Your task to perform on an android device: turn notification dots on Image 0: 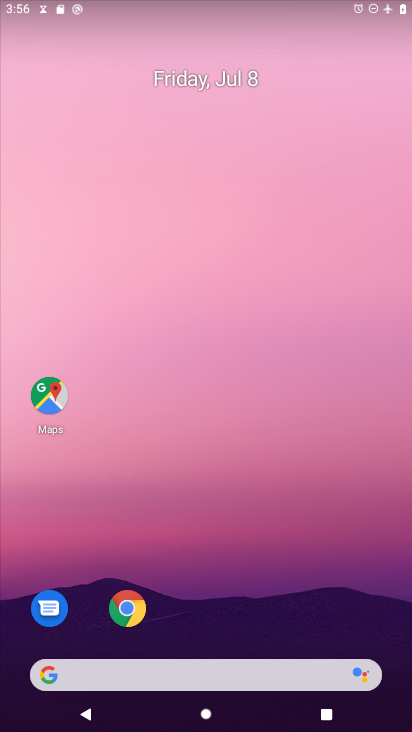
Step 0: drag from (236, 691) to (253, 9)
Your task to perform on an android device: turn notification dots on Image 1: 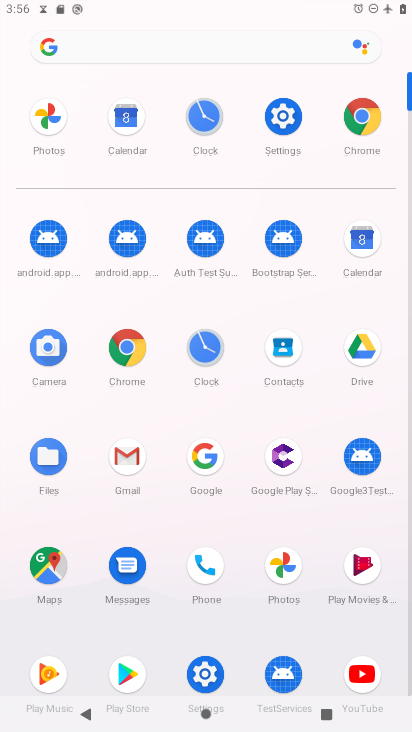
Step 1: click (281, 111)
Your task to perform on an android device: turn notification dots on Image 2: 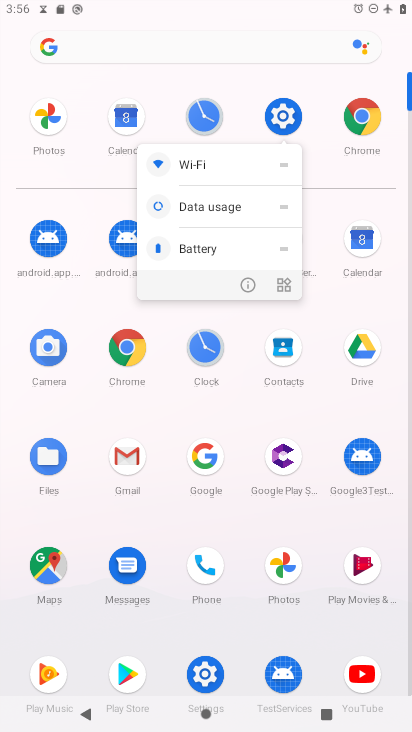
Step 2: click (281, 111)
Your task to perform on an android device: turn notification dots on Image 3: 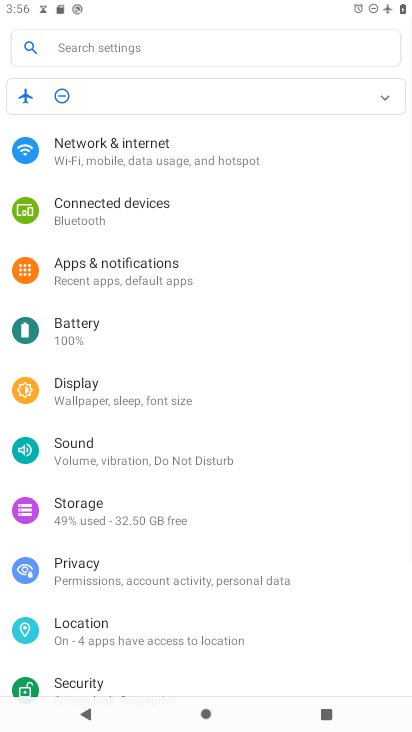
Step 3: click (151, 272)
Your task to perform on an android device: turn notification dots on Image 4: 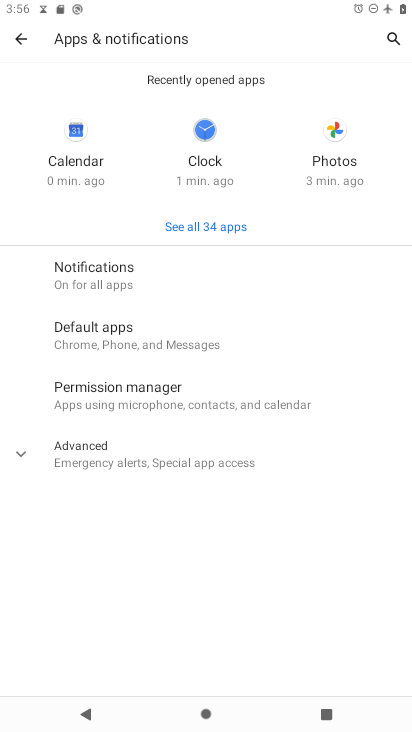
Step 4: click (139, 278)
Your task to perform on an android device: turn notification dots on Image 5: 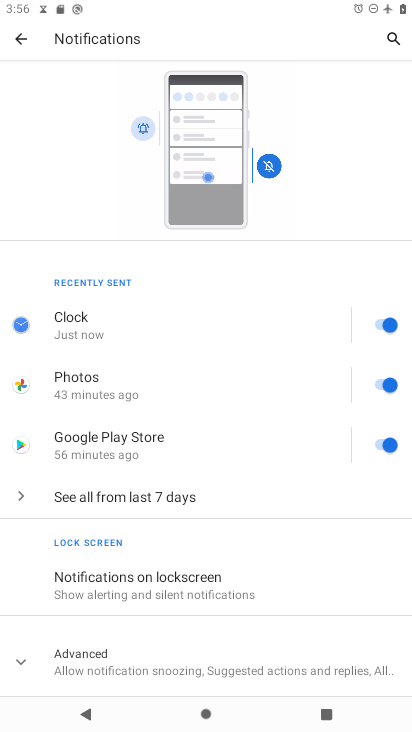
Step 5: drag from (188, 602) to (210, 303)
Your task to perform on an android device: turn notification dots on Image 6: 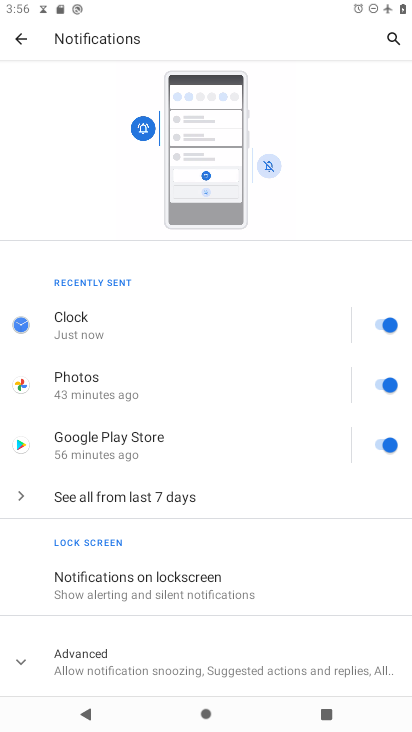
Step 6: click (176, 671)
Your task to perform on an android device: turn notification dots on Image 7: 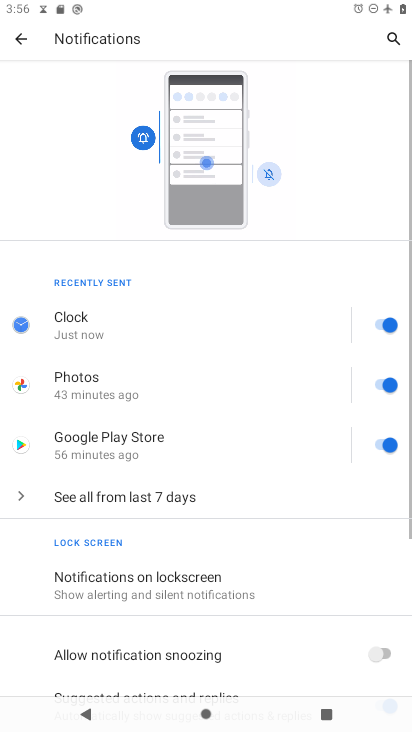
Step 7: task complete